Your task to perform on an android device: Do I have any events today? Image 0: 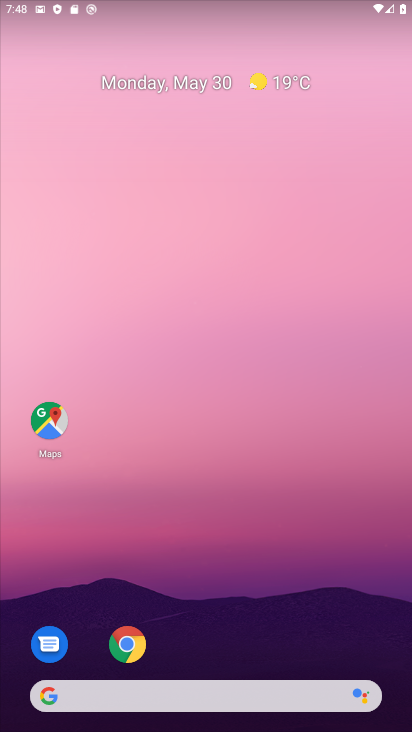
Step 0: drag from (192, 597) to (255, 30)
Your task to perform on an android device: Do I have any events today? Image 1: 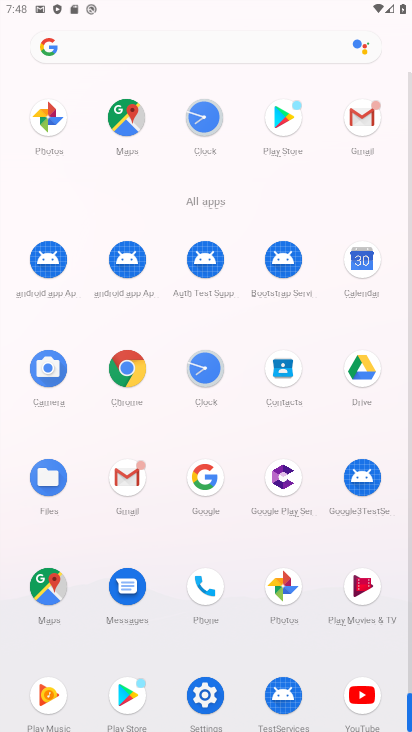
Step 1: click (367, 267)
Your task to perform on an android device: Do I have any events today? Image 2: 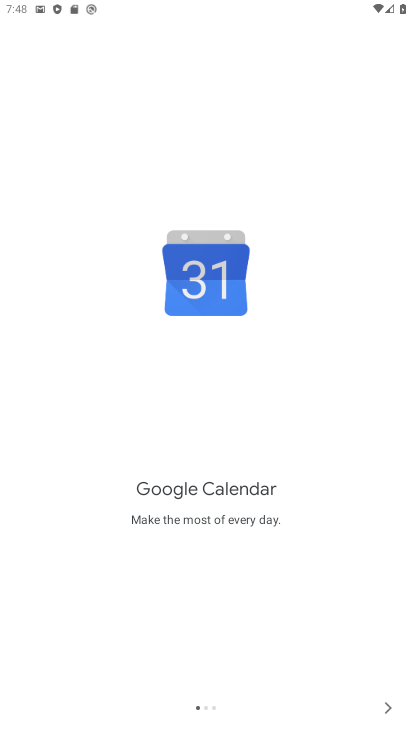
Step 2: click (383, 697)
Your task to perform on an android device: Do I have any events today? Image 3: 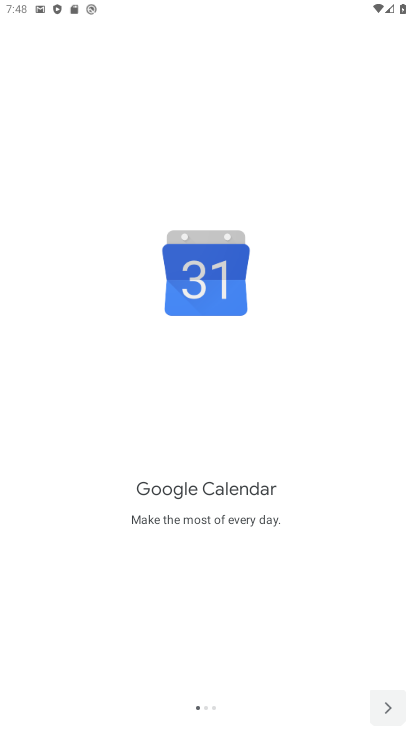
Step 3: click (383, 697)
Your task to perform on an android device: Do I have any events today? Image 4: 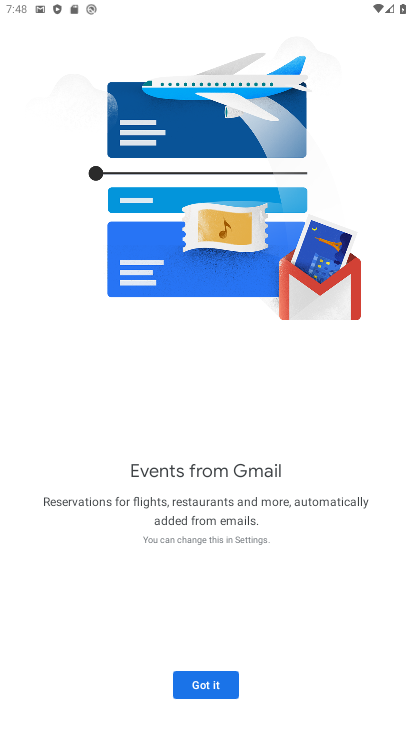
Step 4: click (384, 697)
Your task to perform on an android device: Do I have any events today? Image 5: 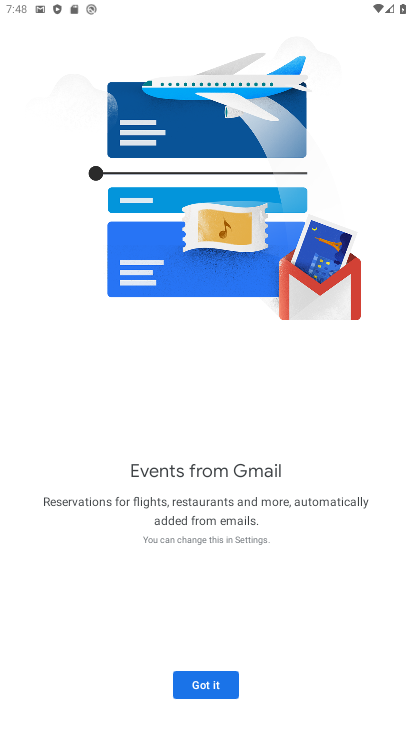
Step 5: click (188, 683)
Your task to perform on an android device: Do I have any events today? Image 6: 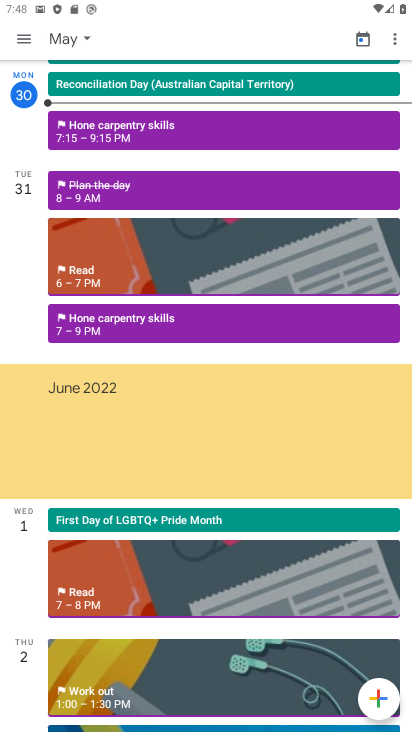
Step 6: drag from (134, 129) to (270, 595)
Your task to perform on an android device: Do I have any events today? Image 7: 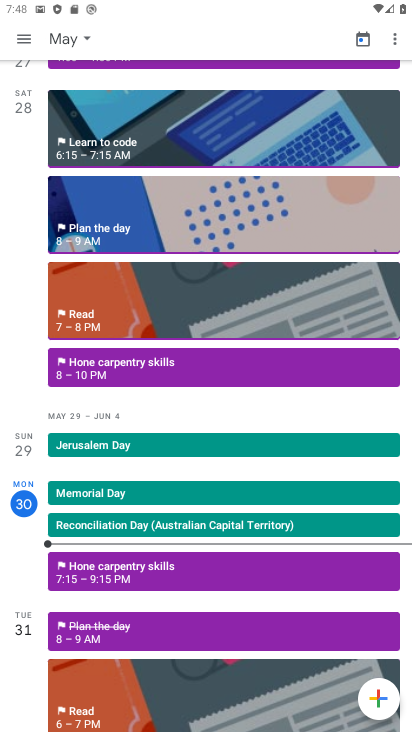
Step 7: click (77, 38)
Your task to perform on an android device: Do I have any events today? Image 8: 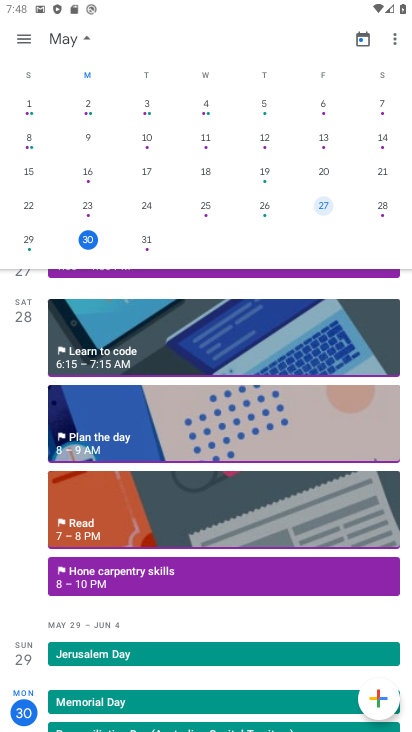
Step 8: click (99, 236)
Your task to perform on an android device: Do I have any events today? Image 9: 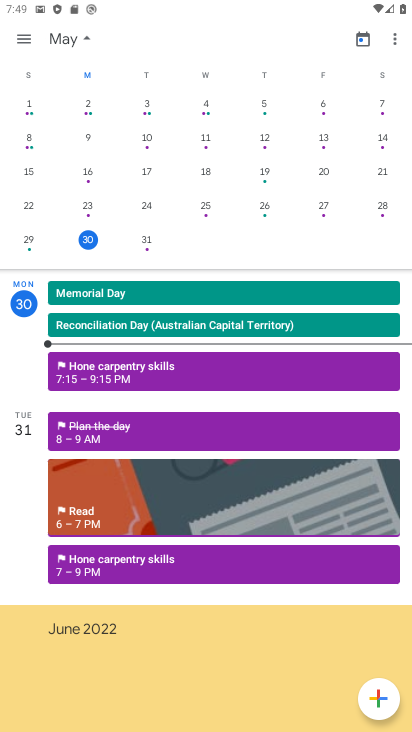
Step 9: task complete